Your task to perform on an android device: empty trash in the gmail app Image 0: 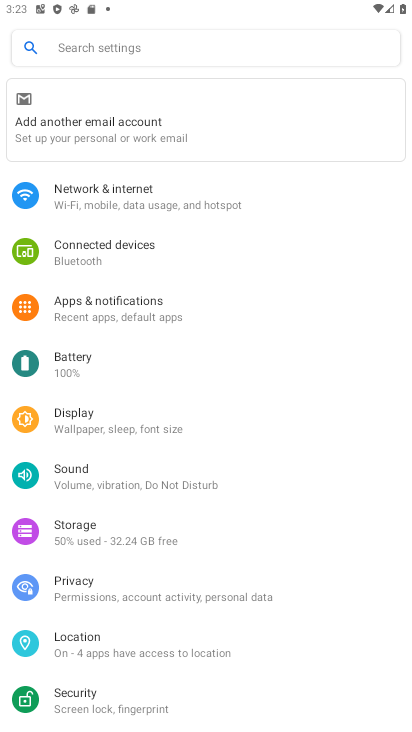
Step 0: press home button
Your task to perform on an android device: empty trash in the gmail app Image 1: 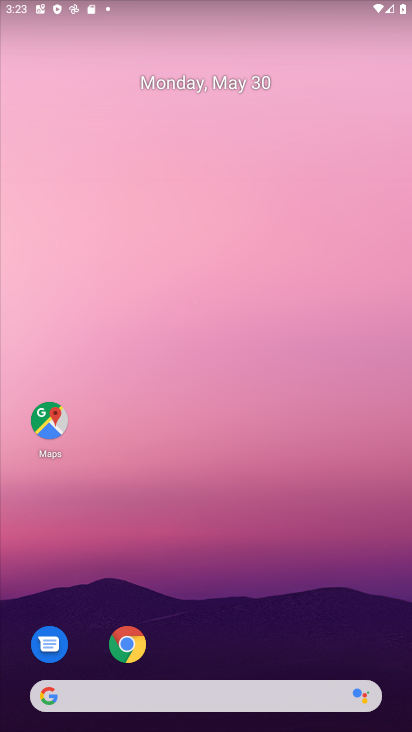
Step 1: drag from (258, 639) to (202, 138)
Your task to perform on an android device: empty trash in the gmail app Image 2: 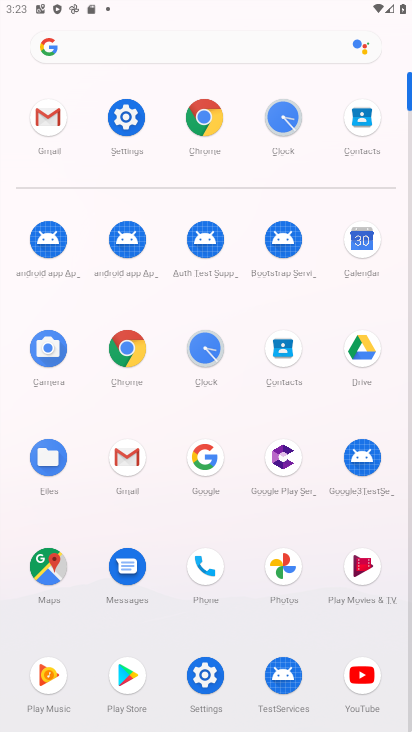
Step 2: click (142, 472)
Your task to perform on an android device: empty trash in the gmail app Image 3: 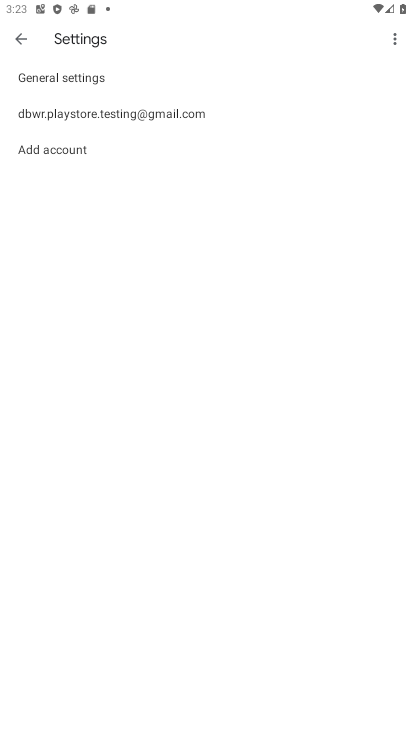
Step 3: task complete